Your task to perform on an android device: check android version Image 0: 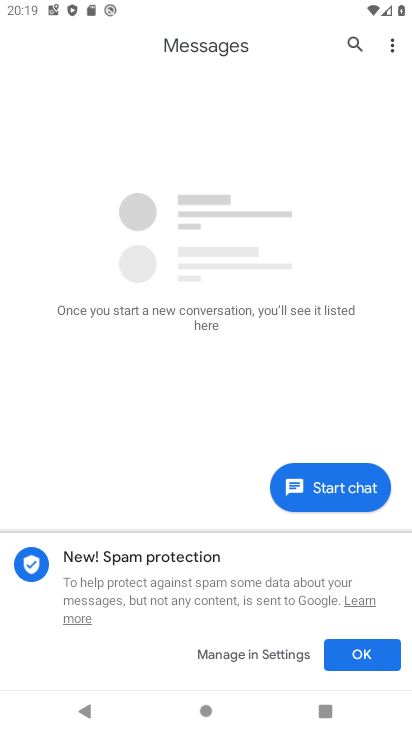
Step 0: drag from (294, 693) to (181, 258)
Your task to perform on an android device: check android version Image 1: 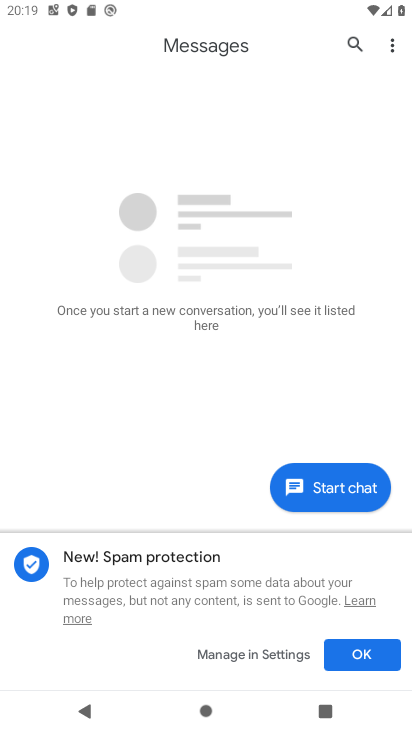
Step 1: press home button
Your task to perform on an android device: check android version Image 2: 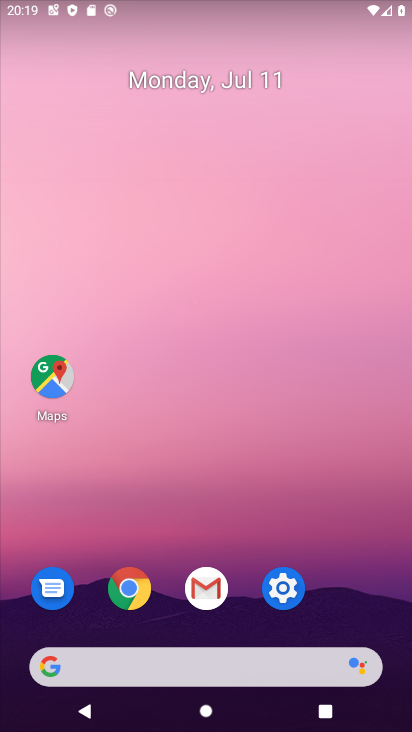
Step 2: click (272, 598)
Your task to perform on an android device: check android version Image 3: 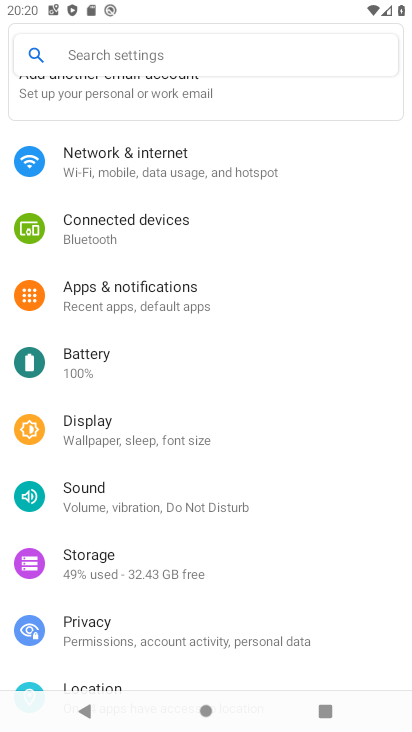
Step 3: click (97, 49)
Your task to perform on an android device: check android version Image 4: 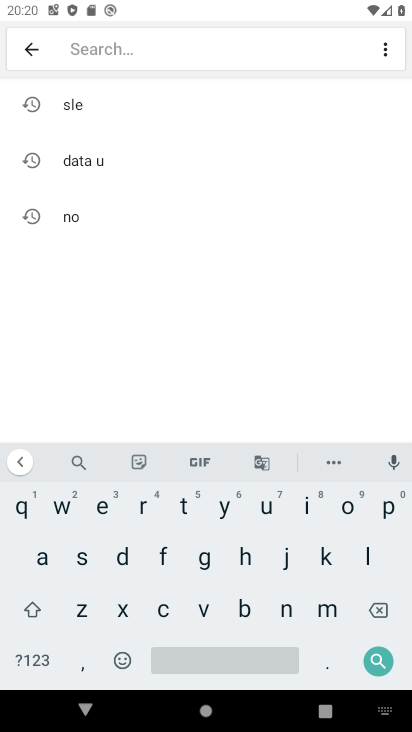
Step 4: click (46, 559)
Your task to perform on an android device: check android version Image 5: 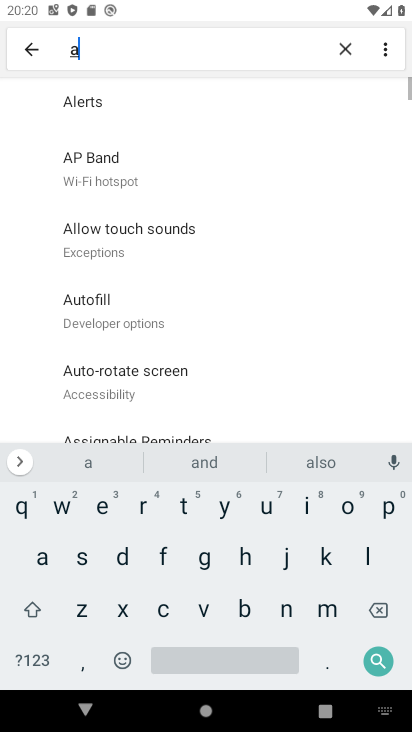
Step 5: click (286, 614)
Your task to perform on an android device: check android version Image 6: 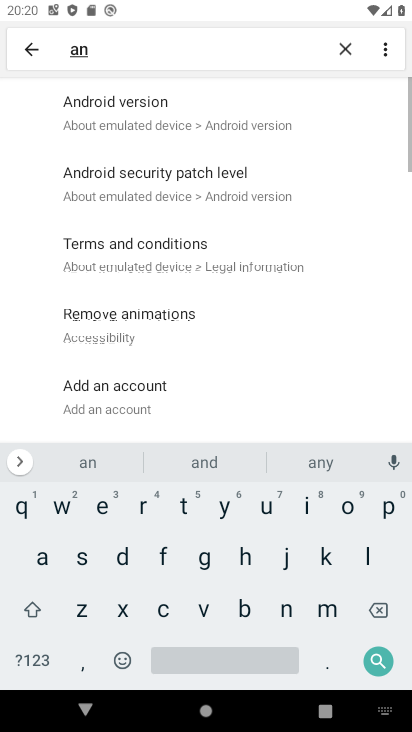
Step 6: click (125, 556)
Your task to perform on an android device: check android version Image 7: 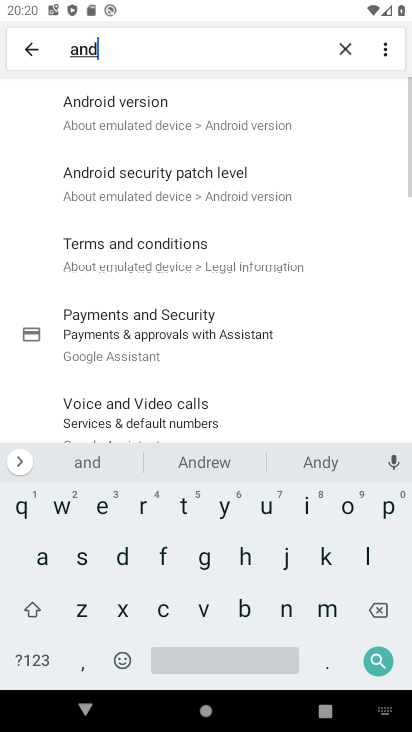
Step 7: click (142, 104)
Your task to perform on an android device: check android version Image 8: 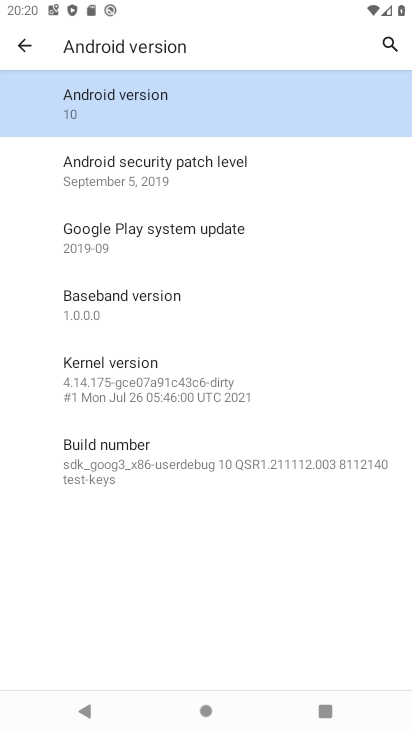
Step 8: click (143, 101)
Your task to perform on an android device: check android version Image 9: 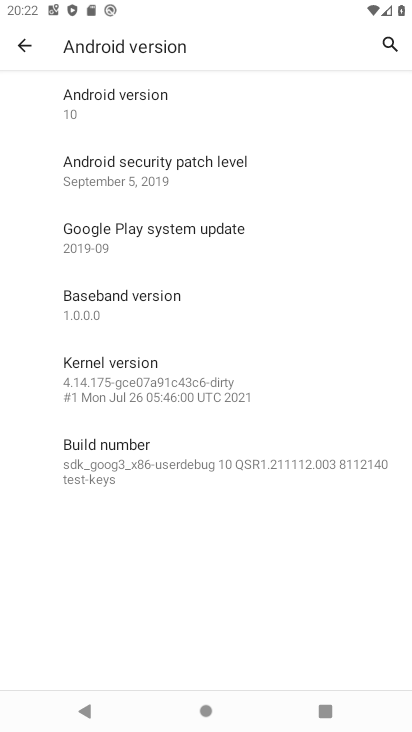
Step 9: task complete